Your task to perform on an android device: turn on wifi Image 0: 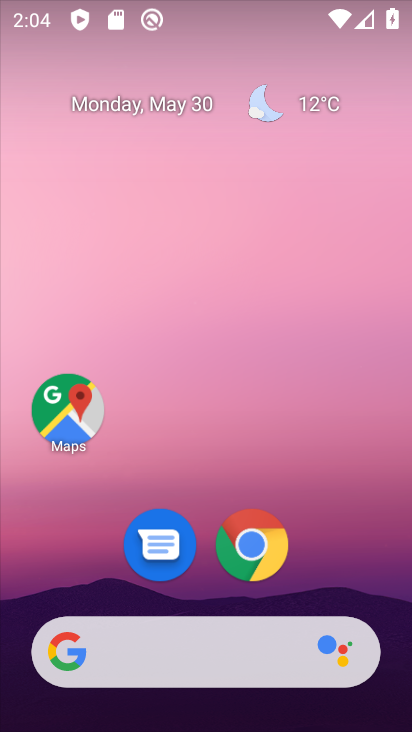
Step 0: click (194, 416)
Your task to perform on an android device: turn on wifi Image 1: 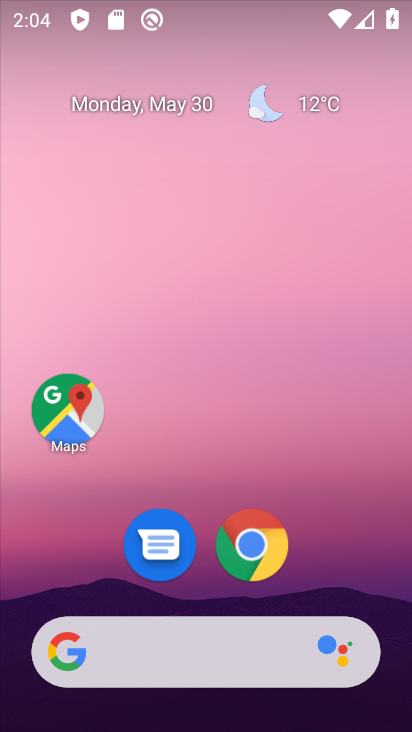
Step 1: click (168, 483)
Your task to perform on an android device: turn on wifi Image 2: 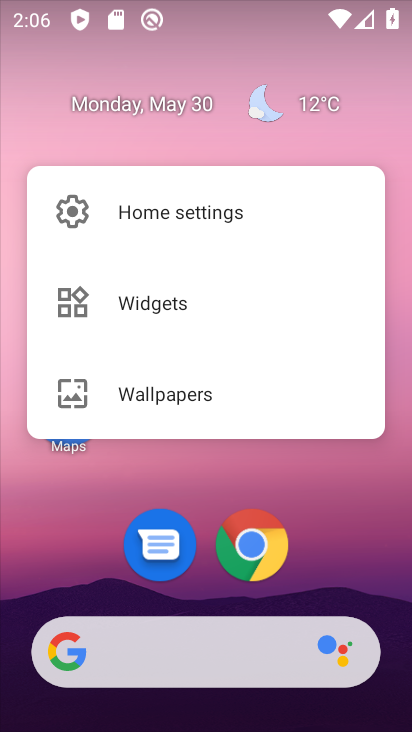
Step 2: task complete